Your task to perform on an android device: turn off data saver in the chrome app Image 0: 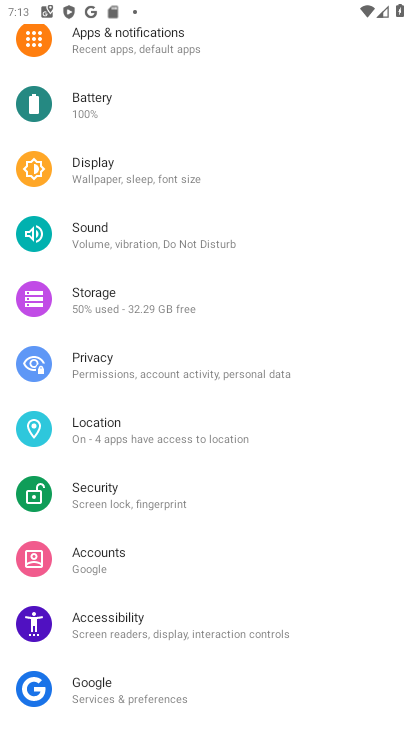
Step 0: press home button
Your task to perform on an android device: turn off data saver in the chrome app Image 1: 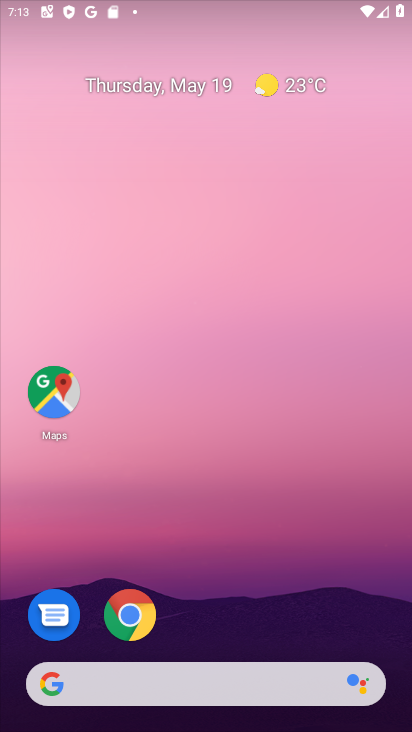
Step 1: drag from (349, 603) to (313, 10)
Your task to perform on an android device: turn off data saver in the chrome app Image 2: 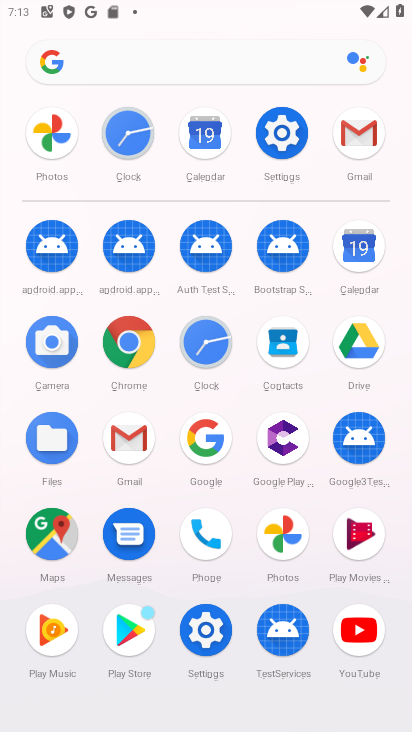
Step 2: click (123, 366)
Your task to perform on an android device: turn off data saver in the chrome app Image 3: 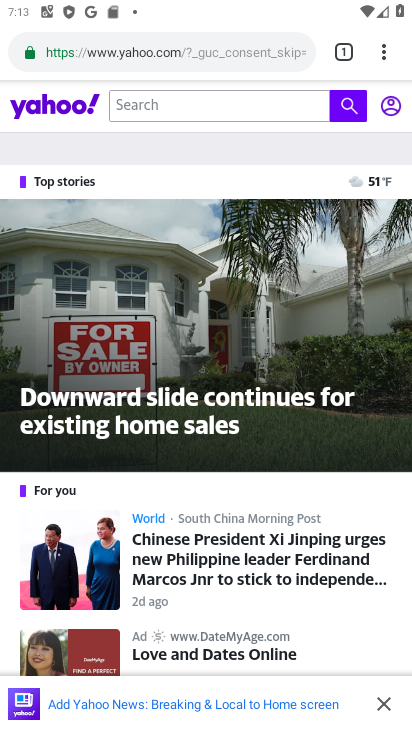
Step 3: press back button
Your task to perform on an android device: turn off data saver in the chrome app Image 4: 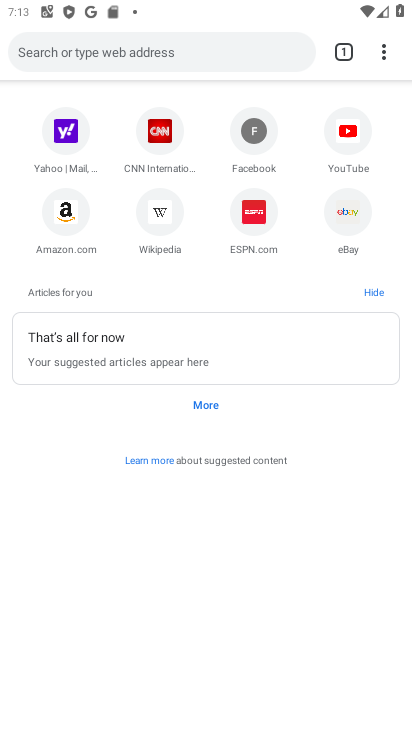
Step 4: click (382, 53)
Your task to perform on an android device: turn off data saver in the chrome app Image 5: 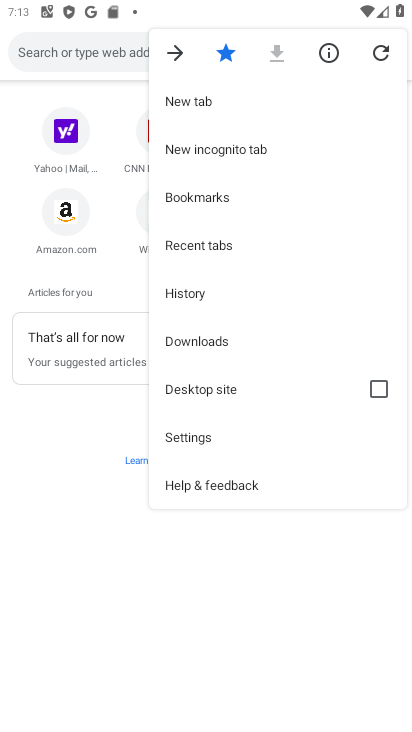
Step 5: click (197, 432)
Your task to perform on an android device: turn off data saver in the chrome app Image 6: 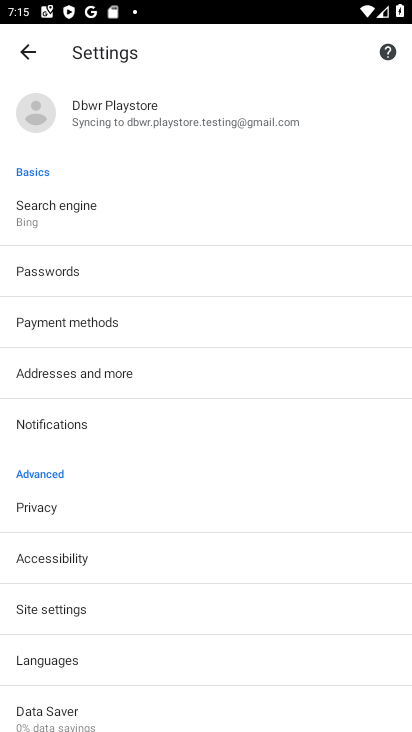
Step 6: click (96, 698)
Your task to perform on an android device: turn off data saver in the chrome app Image 7: 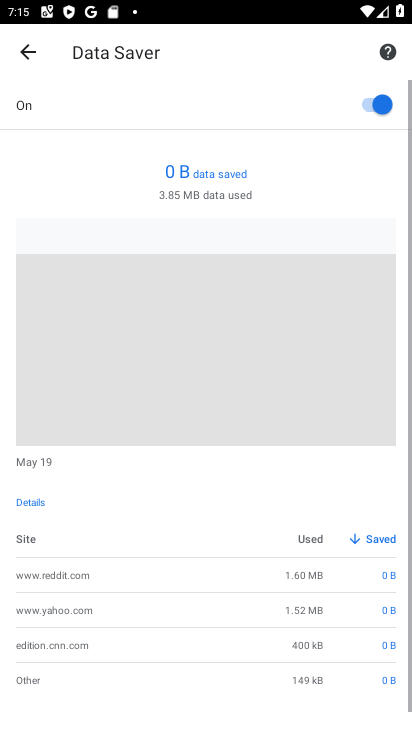
Step 7: click (352, 97)
Your task to perform on an android device: turn off data saver in the chrome app Image 8: 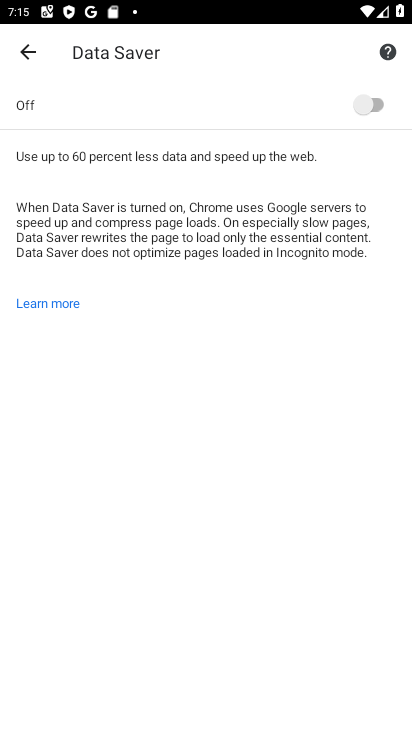
Step 8: task complete